Your task to perform on an android device: Search for pizza restaurants on Maps Image 0: 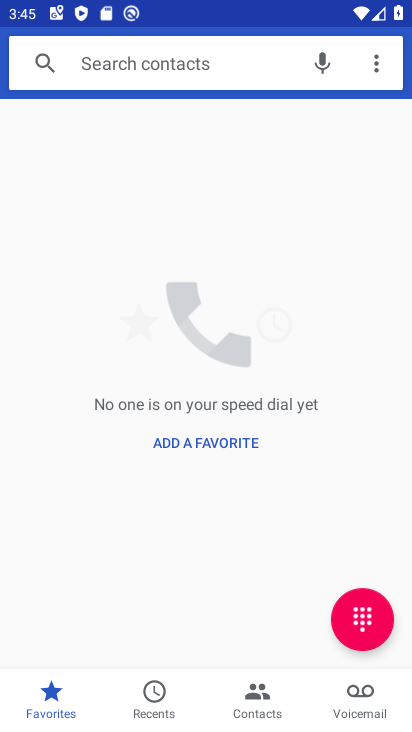
Step 0: press home button
Your task to perform on an android device: Search for pizza restaurants on Maps Image 1: 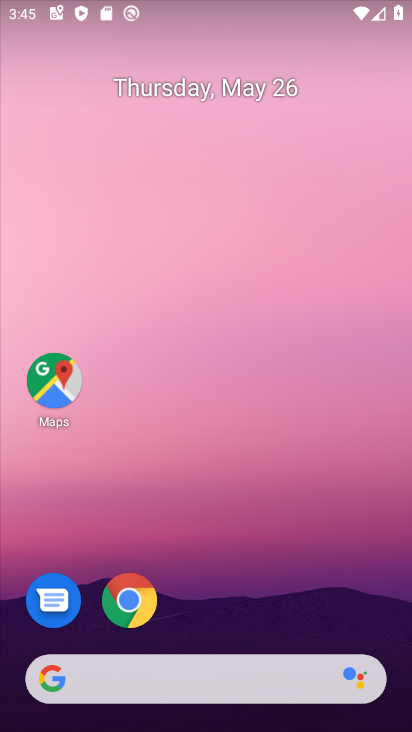
Step 1: click (62, 395)
Your task to perform on an android device: Search for pizza restaurants on Maps Image 2: 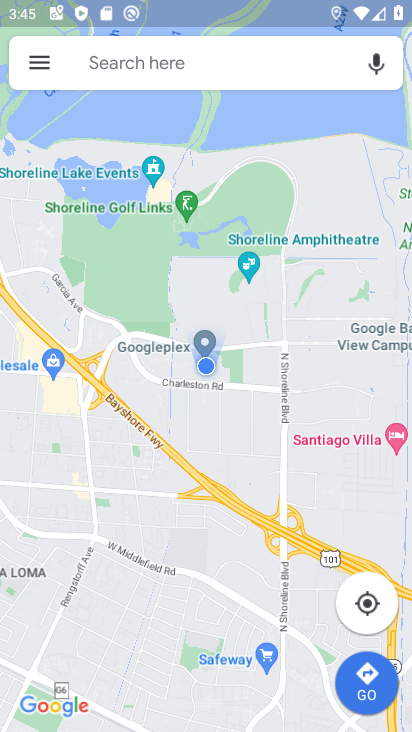
Step 2: click (173, 64)
Your task to perform on an android device: Search for pizza restaurants on Maps Image 3: 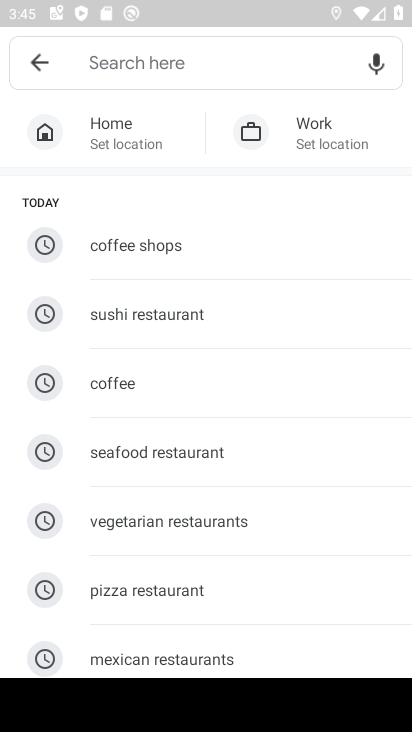
Step 3: type "Pizza restaurants"
Your task to perform on an android device: Search for pizza restaurants on Maps Image 4: 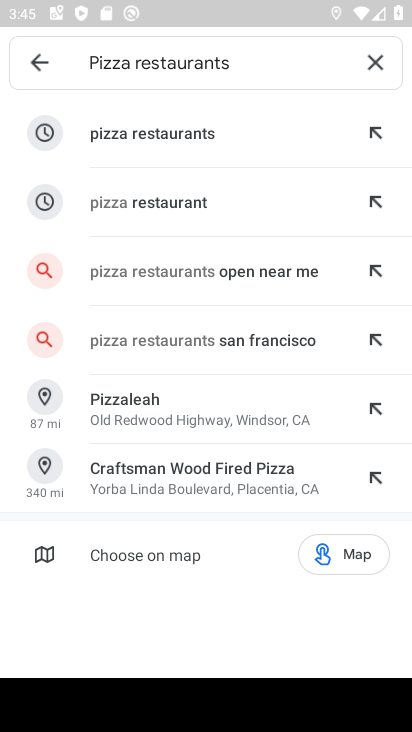
Step 4: click (159, 146)
Your task to perform on an android device: Search for pizza restaurants on Maps Image 5: 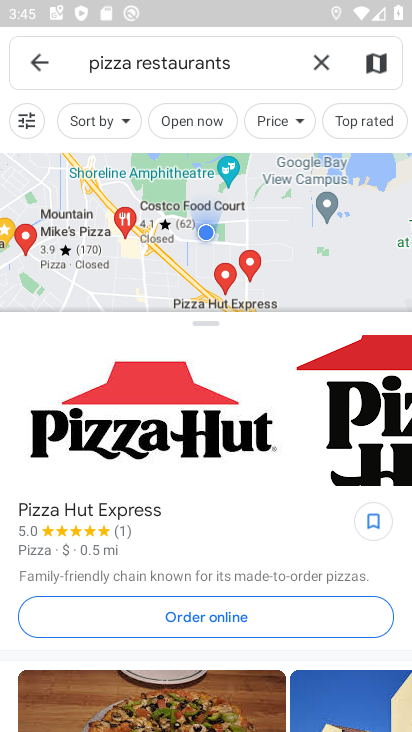
Step 5: task complete